Your task to perform on an android device: turn off improve location accuracy Image 0: 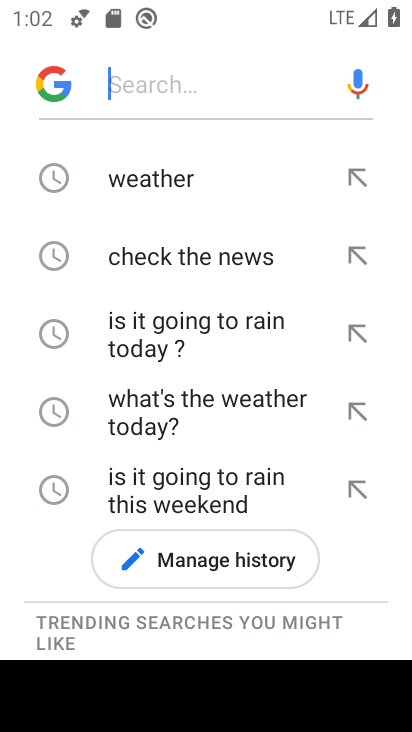
Step 0: press back button
Your task to perform on an android device: turn off improve location accuracy Image 1: 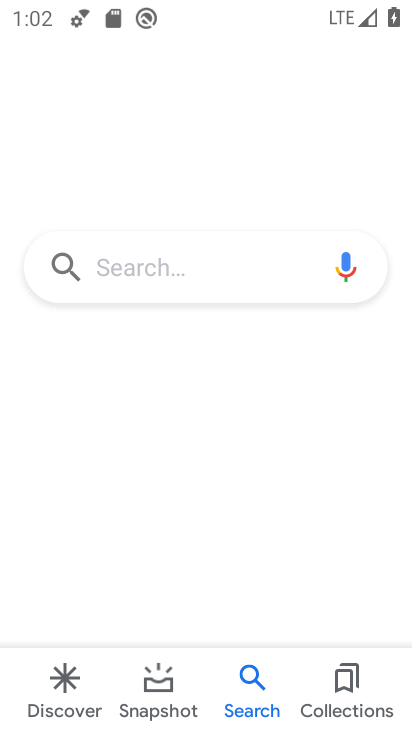
Step 1: press back button
Your task to perform on an android device: turn off improve location accuracy Image 2: 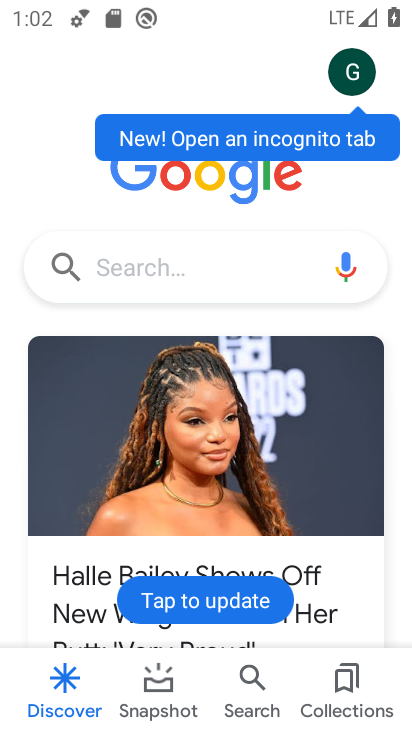
Step 2: press back button
Your task to perform on an android device: turn off improve location accuracy Image 3: 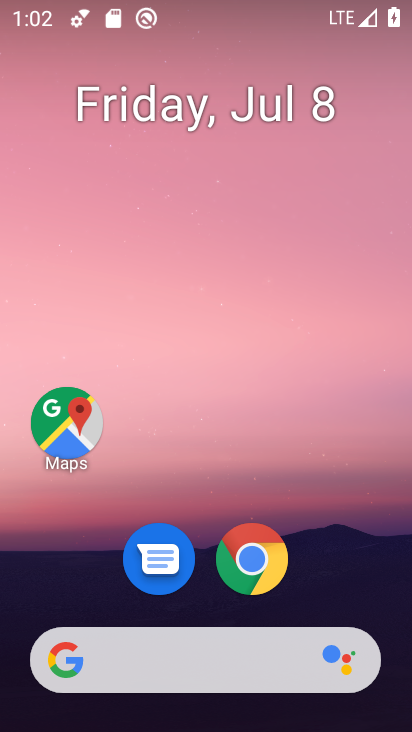
Step 3: drag from (187, 610) to (244, 112)
Your task to perform on an android device: turn off improve location accuracy Image 4: 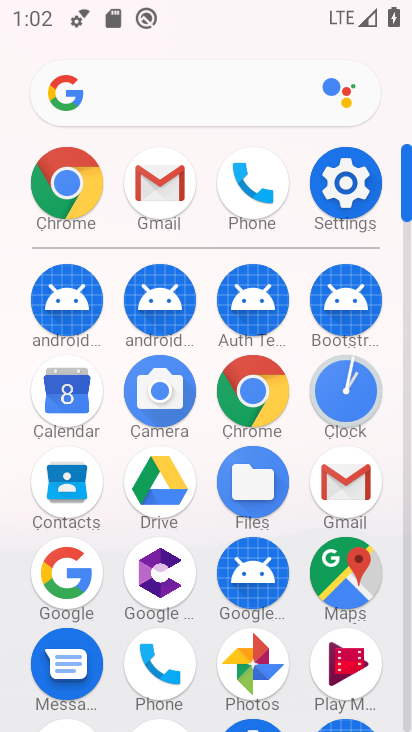
Step 4: click (347, 163)
Your task to perform on an android device: turn off improve location accuracy Image 5: 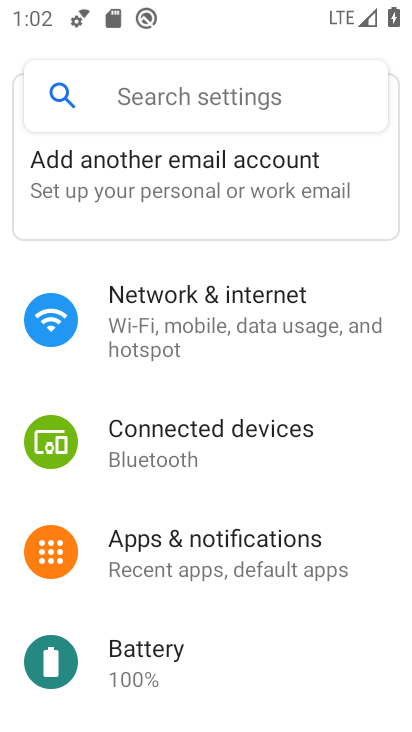
Step 5: drag from (250, 552) to (251, 306)
Your task to perform on an android device: turn off improve location accuracy Image 6: 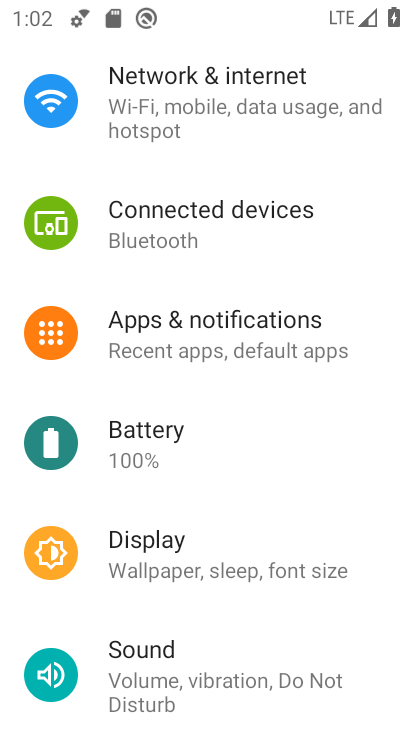
Step 6: drag from (218, 521) to (164, 190)
Your task to perform on an android device: turn off improve location accuracy Image 7: 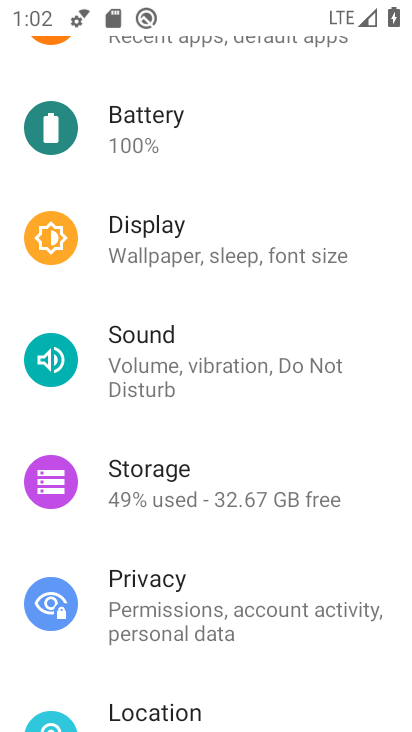
Step 7: click (163, 704)
Your task to perform on an android device: turn off improve location accuracy Image 8: 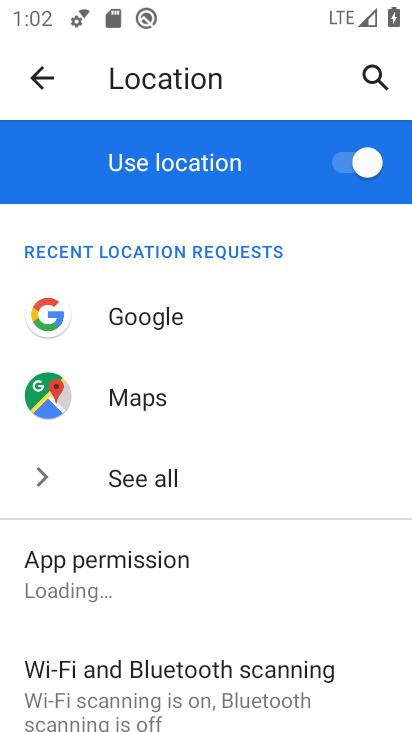
Step 8: drag from (173, 661) to (115, 149)
Your task to perform on an android device: turn off improve location accuracy Image 9: 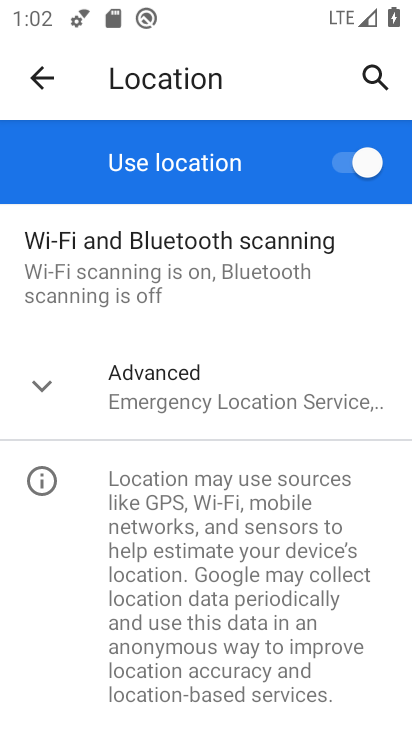
Step 9: click (144, 369)
Your task to perform on an android device: turn off improve location accuracy Image 10: 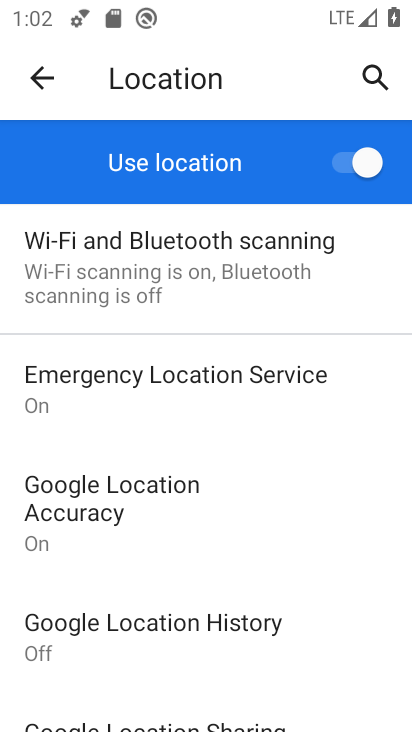
Step 10: click (107, 500)
Your task to perform on an android device: turn off improve location accuracy Image 11: 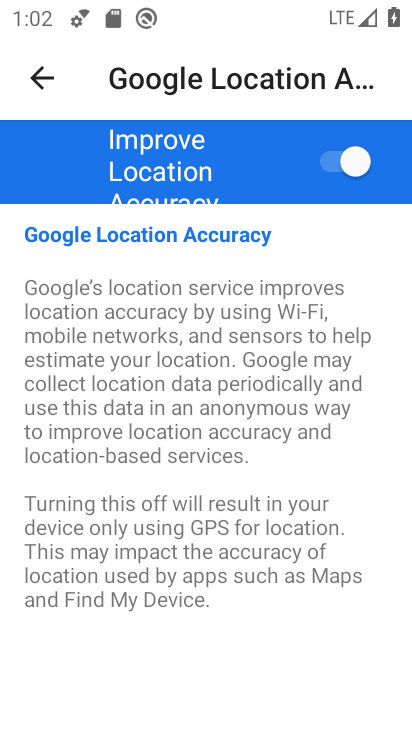
Step 11: click (351, 166)
Your task to perform on an android device: turn off improve location accuracy Image 12: 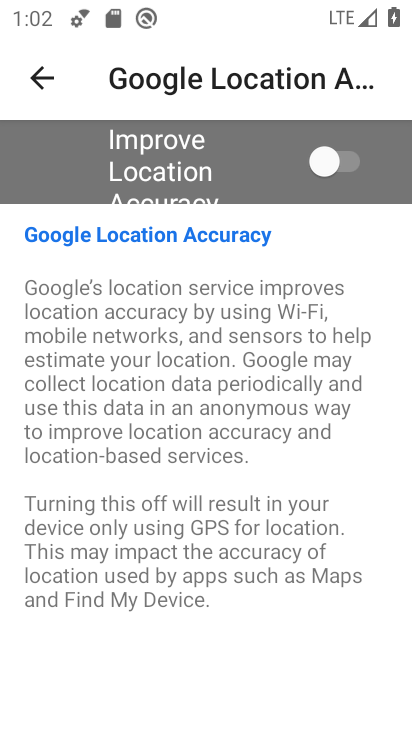
Step 12: task complete